Your task to perform on an android device: turn pop-ups on in chrome Image 0: 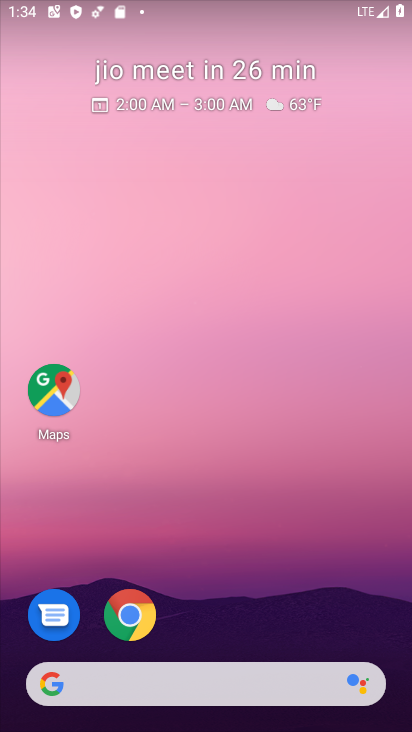
Step 0: click (136, 626)
Your task to perform on an android device: turn pop-ups on in chrome Image 1: 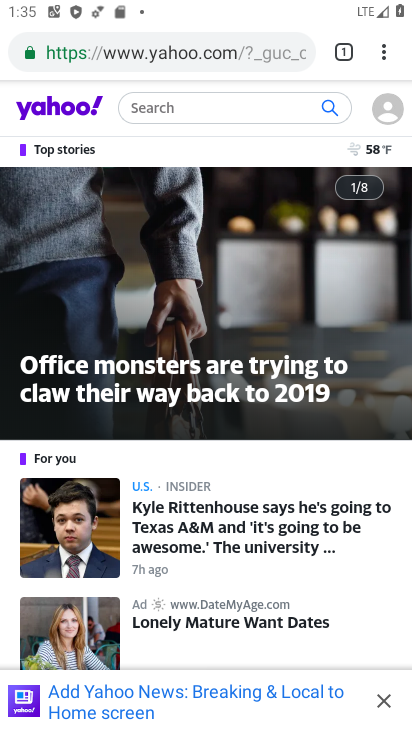
Step 1: drag from (376, 45) to (268, 662)
Your task to perform on an android device: turn pop-ups on in chrome Image 2: 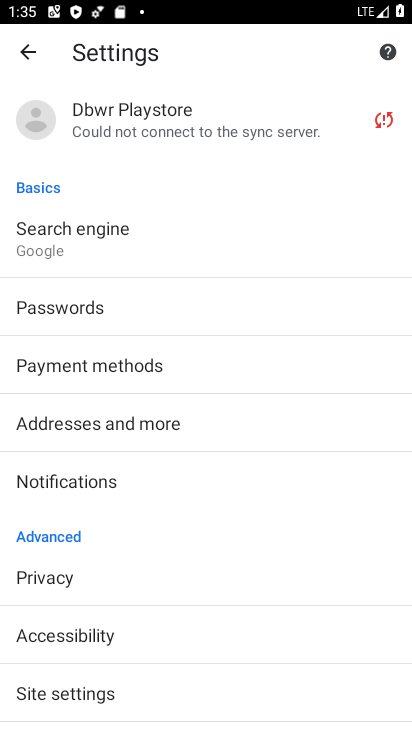
Step 2: drag from (184, 708) to (261, 379)
Your task to perform on an android device: turn pop-ups on in chrome Image 3: 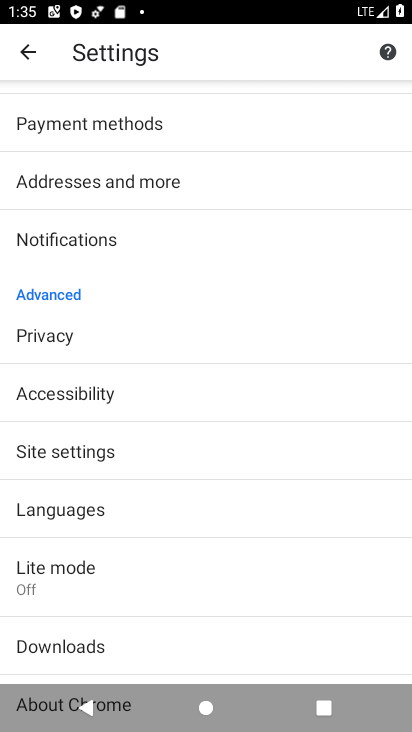
Step 3: click (137, 458)
Your task to perform on an android device: turn pop-ups on in chrome Image 4: 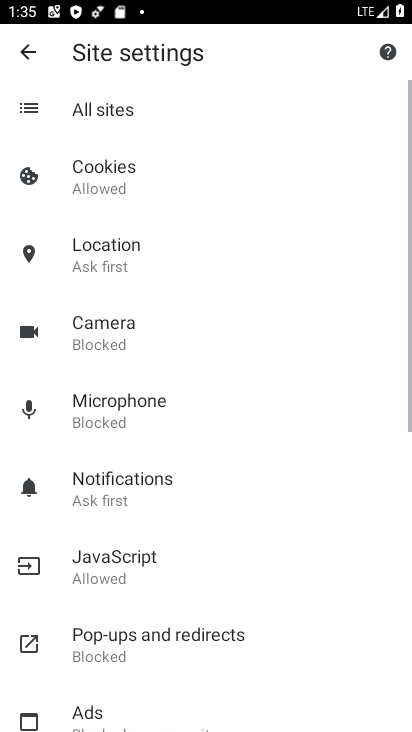
Step 4: drag from (157, 716) to (273, 173)
Your task to perform on an android device: turn pop-ups on in chrome Image 5: 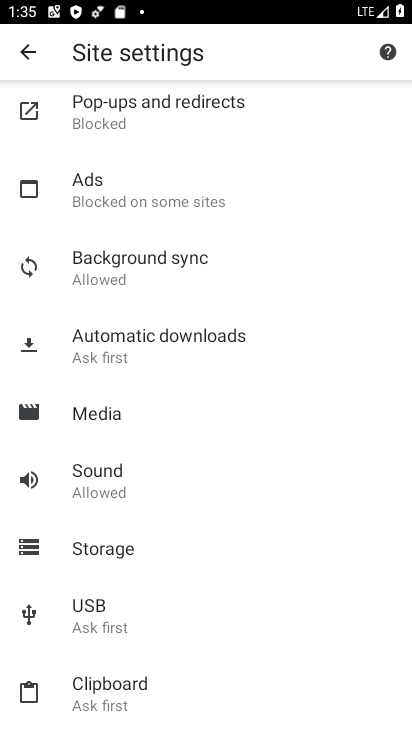
Step 5: click (185, 114)
Your task to perform on an android device: turn pop-ups on in chrome Image 6: 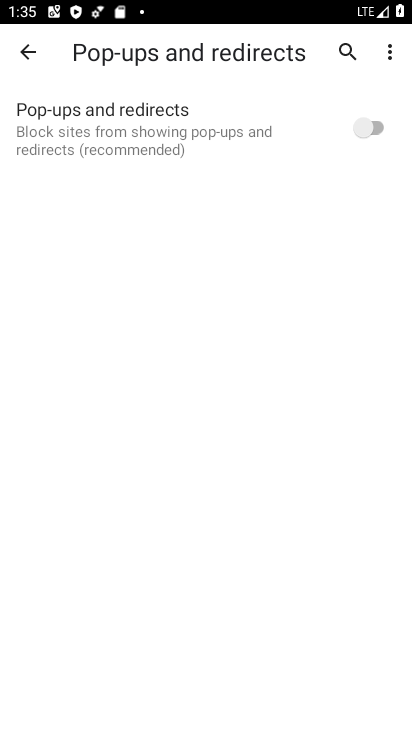
Step 6: click (378, 123)
Your task to perform on an android device: turn pop-ups on in chrome Image 7: 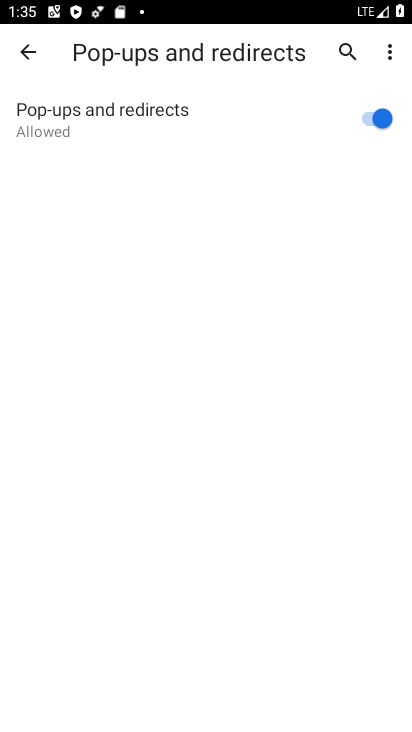
Step 7: task complete